Your task to perform on an android device: Go to Google maps Image 0: 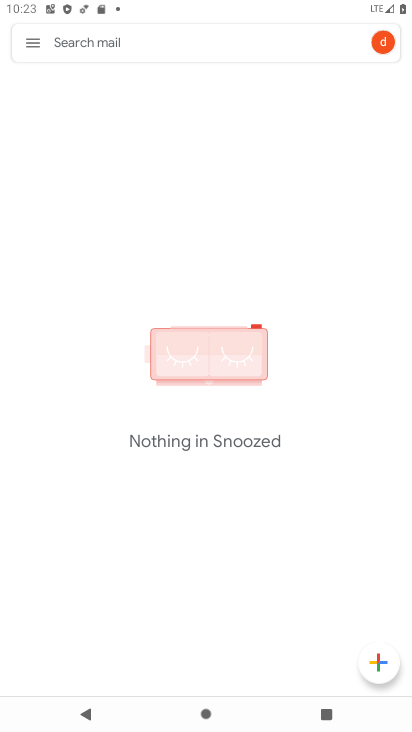
Step 0: press home button
Your task to perform on an android device: Go to Google maps Image 1: 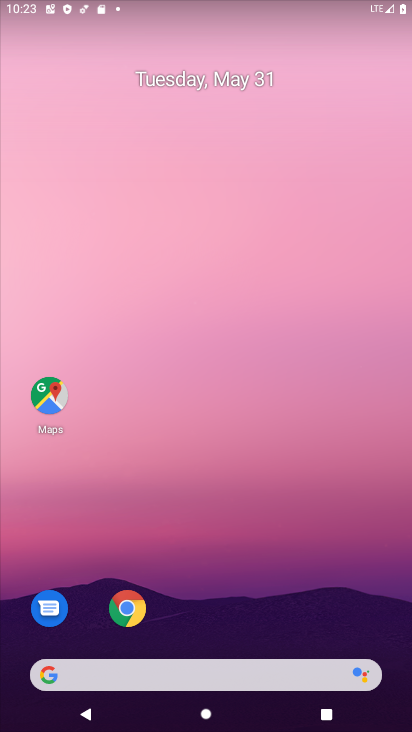
Step 1: drag from (197, 674) to (284, 0)
Your task to perform on an android device: Go to Google maps Image 2: 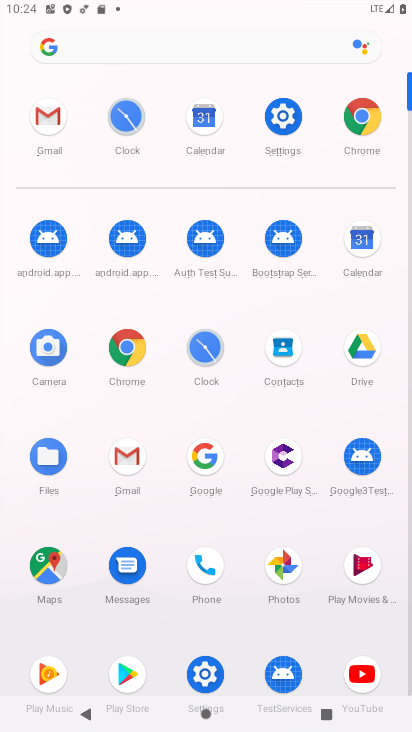
Step 2: click (23, 573)
Your task to perform on an android device: Go to Google maps Image 3: 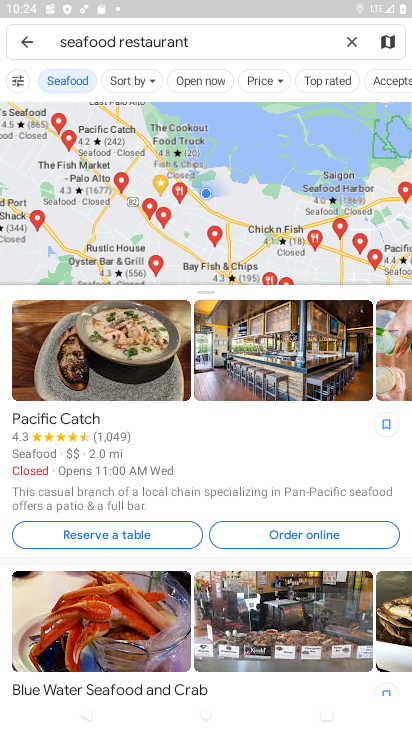
Step 3: task complete